Your task to perform on an android device: turn off improve location accuracy Image 0: 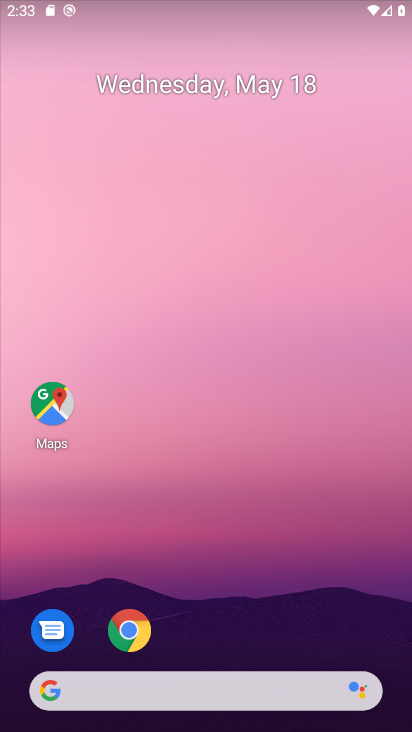
Step 0: press home button
Your task to perform on an android device: turn off improve location accuracy Image 1: 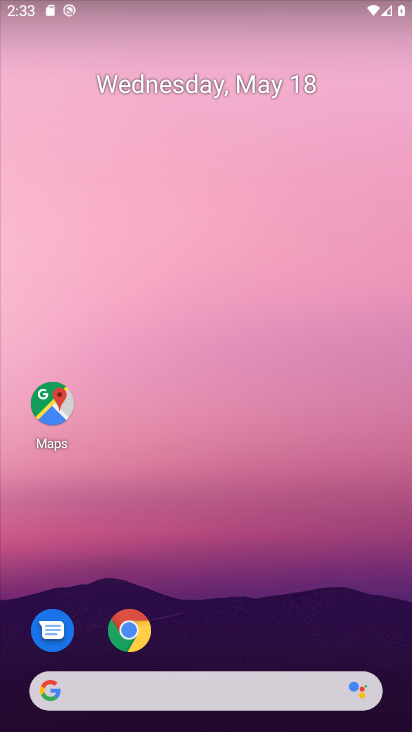
Step 1: drag from (225, 659) to (263, 6)
Your task to perform on an android device: turn off improve location accuracy Image 2: 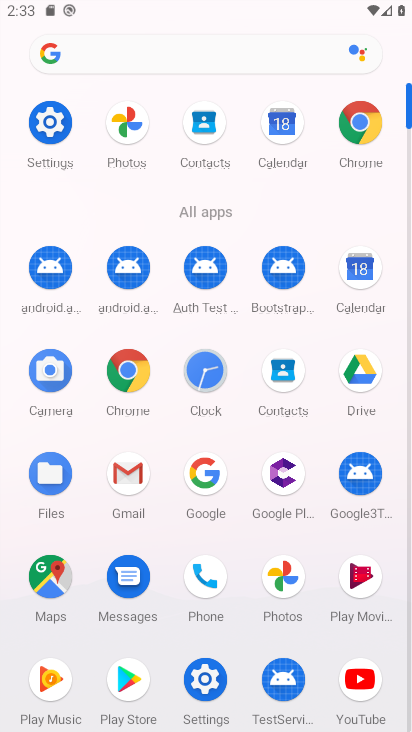
Step 2: click (49, 114)
Your task to perform on an android device: turn off improve location accuracy Image 3: 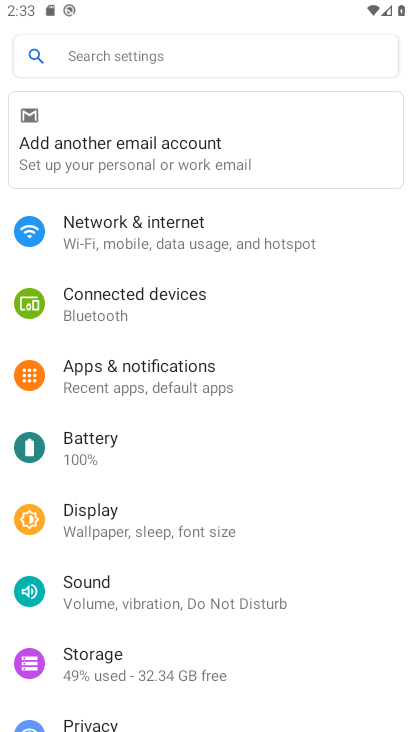
Step 3: drag from (154, 704) to (228, 170)
Your task to perform on an android device: turn off improve location accuracy Image 4: 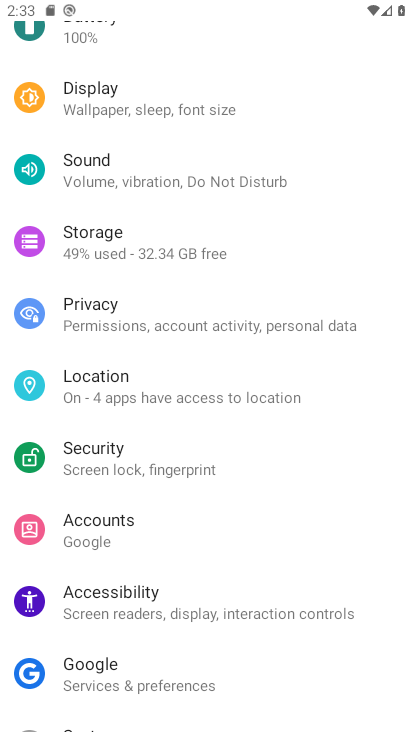
Step 4: click (145, 372)
Your task to perform on an android device: turn off improve location accuracy Image 5: 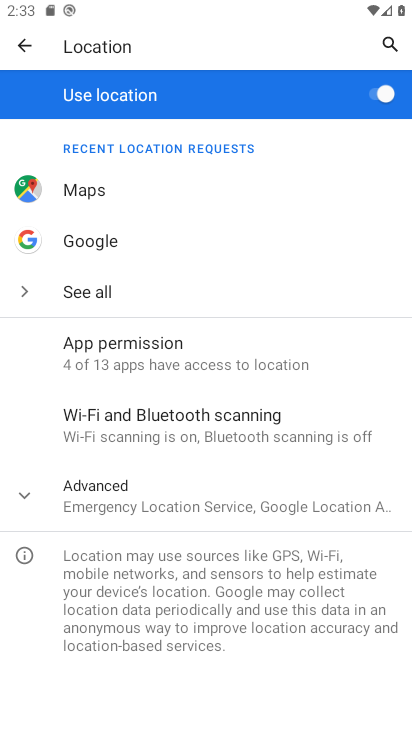
Step 5: click (24, 490)
Your task to perform on an android device: turn off improve location accuracy Image 6: 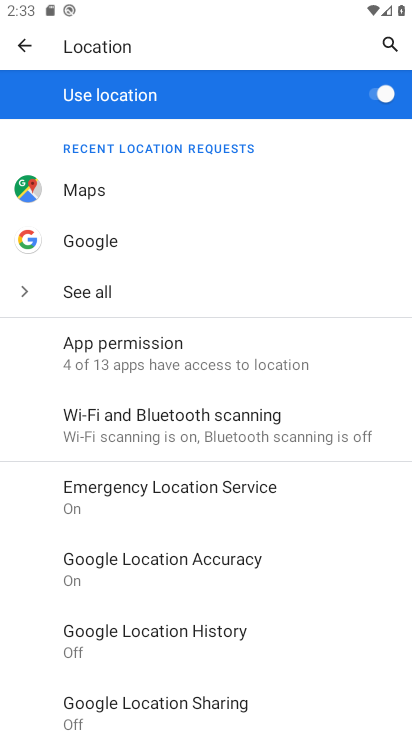
Step 6: click (137, 569)
Your task to perform on an android device: turn off improve location accuracy Image 7: 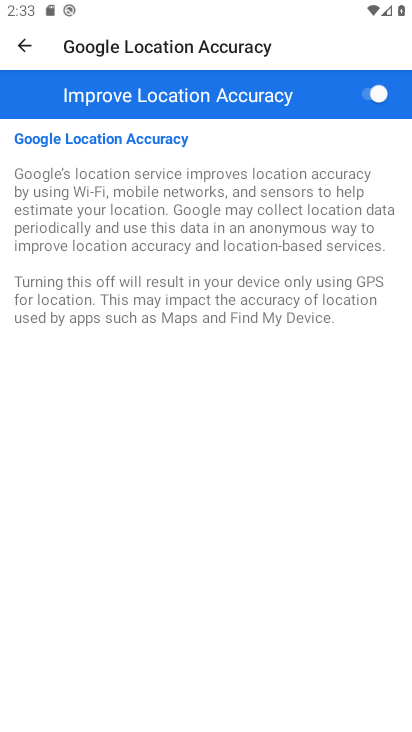
Step 7: click (371, 95)
Your task to perform on an android device: turn off improve location accuracy Image 8: 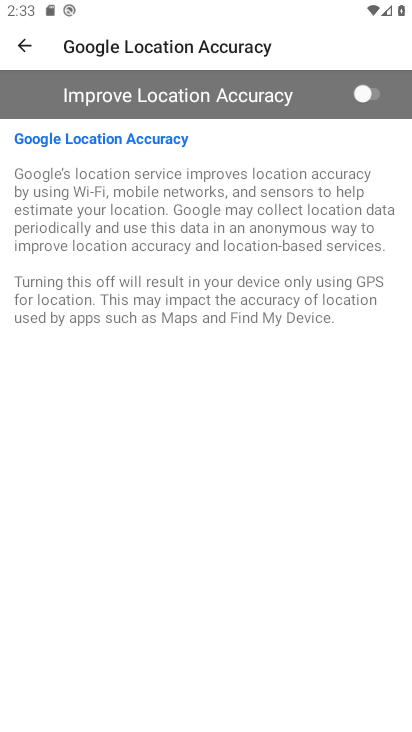
Step 8: task complete